Your task to perform on an android device: delete a single message in the gmail app Image 0: 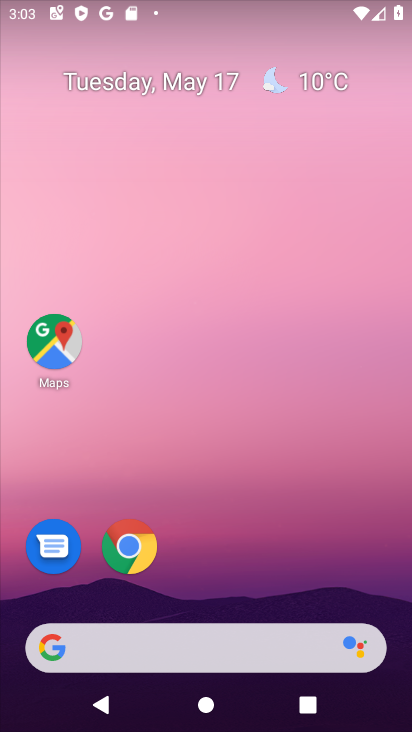
Step 0: drag from (219, 598) to (244, 20)
Your task to perform on an android device: delete a single message in the gmail app Image 1: 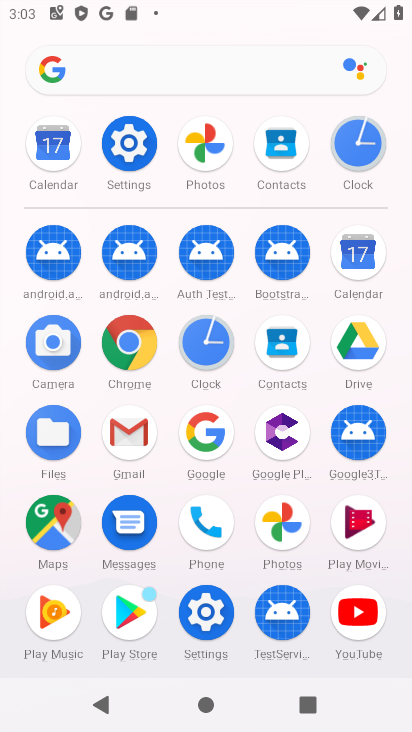
Step 1: click (134, 335)
Your task to perform on an android device: delete a single message in the gmail app Image 2: 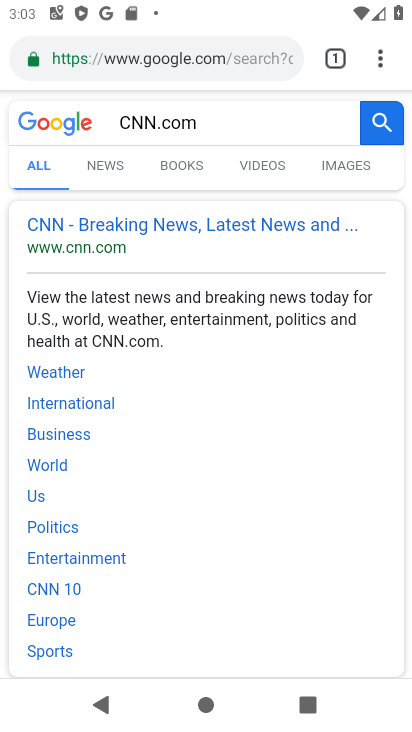
Step 2: press home button
Your task to perform on an android device: delete a single message in the gmail app Image 3: 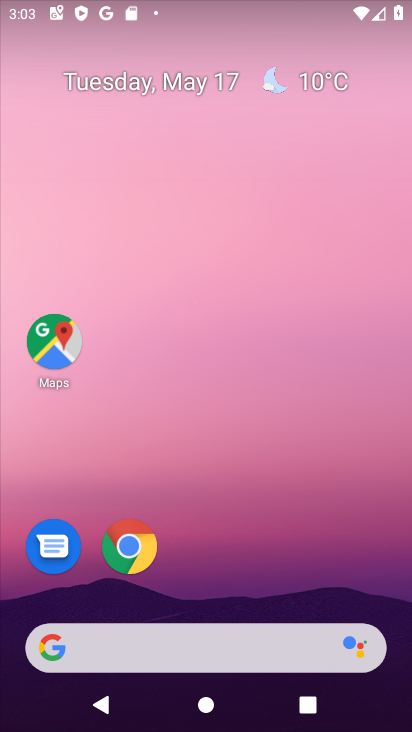
Step 3: drag from (202, 532) to (193, 7)
Your task to perform on an android device: delete a single message in the gmail app Image 4: 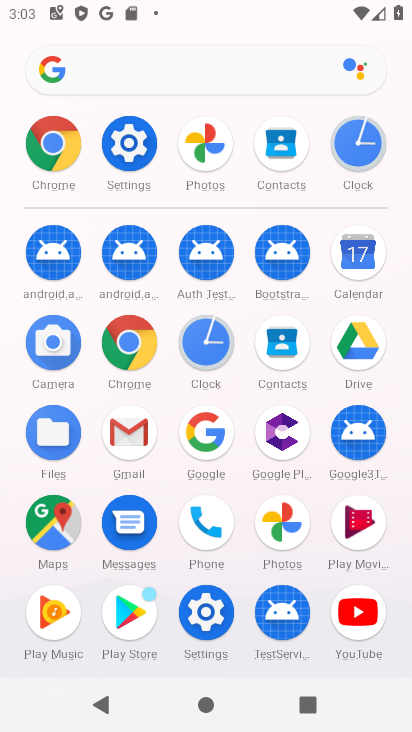
Step 4: click (133, 435)
Your task to perform on an android device: delete a single message in the gmail app Image 5: 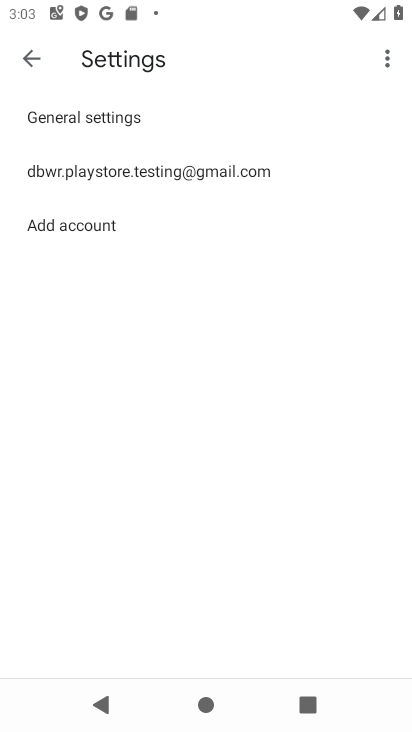
Step 5: click (22, 46)
Your task to perform on an android device: delete a single message in the gmail app Image 6: 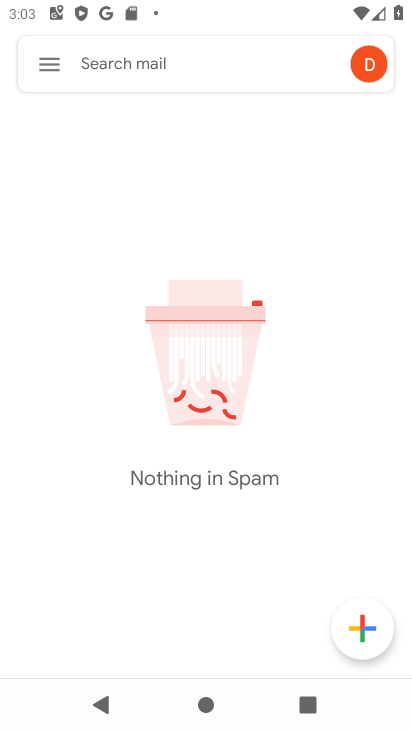
Step 6: click (55, 67)
Your task to perform on an android device: delete a single message in the gmail app Image 7: 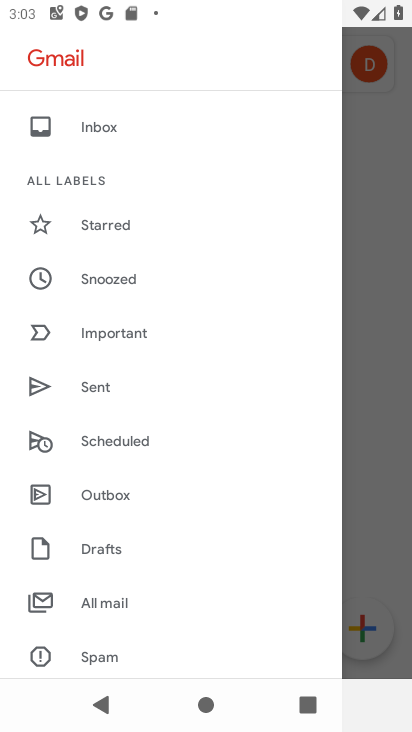
Step 7: click (123, 588)
Your task to perform on an android device: delete a single message in the gmail app Image 8: 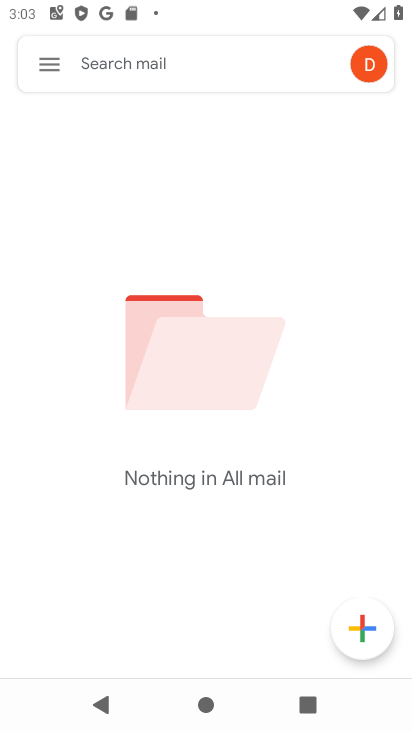
Step 8: task complete